Your task to perform on an android device: Go to Wikipedia Image 0: 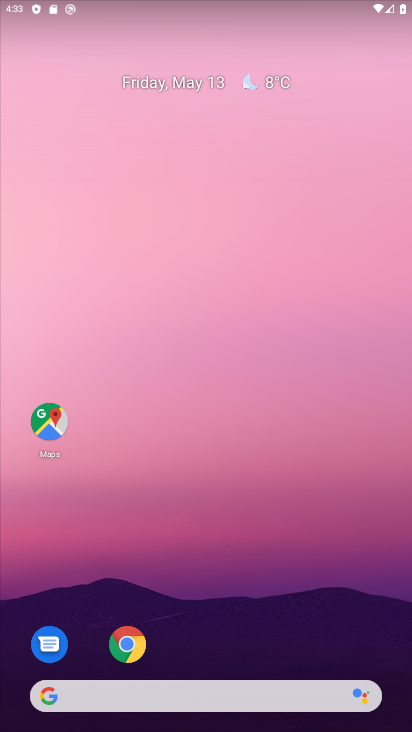
Step 0: click (123, 646)
Your task to perform on an android device: Go to Wikipedia Image 1: 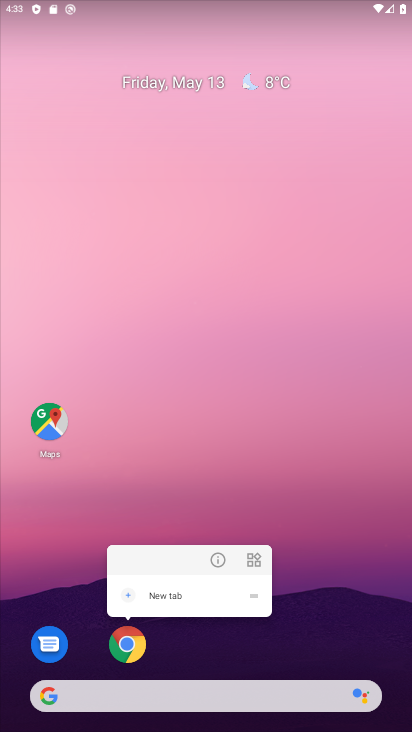
Step 1: click (122, 650)
Your task to perform on an android device: Go to Wikipedia Image 2: 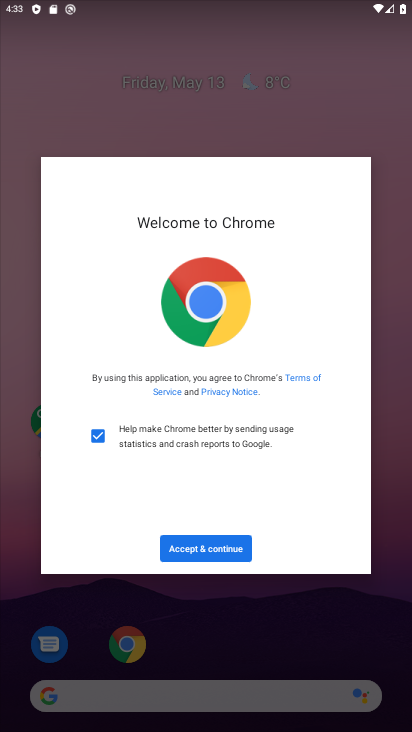
Step 2: click (210, 550)
Your task to perform on an android device: Go to Wikipedia Image 3: 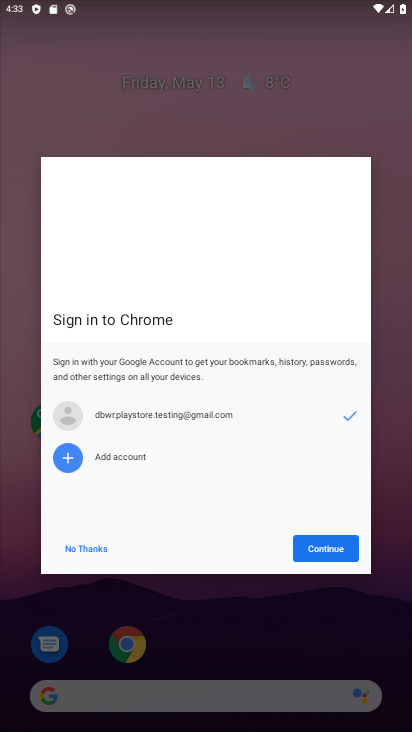
Step 3: click (337, 534)
Your task to perform on an android device: Go to Wikipedia Image 4: 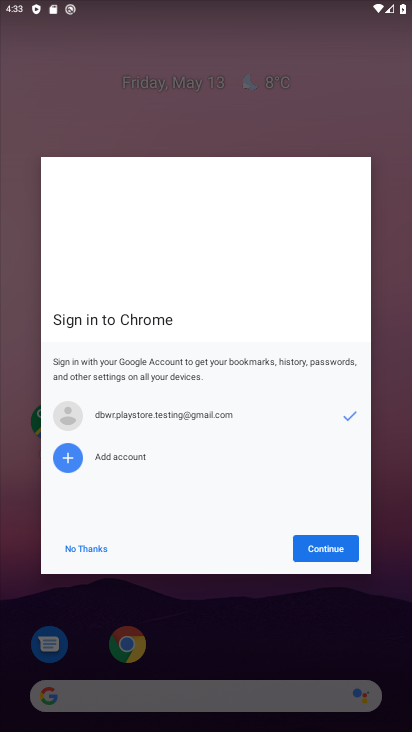
Step 4: click (341, 558)
Your task to perform on an android device: Go to Wikipedia Image 5: 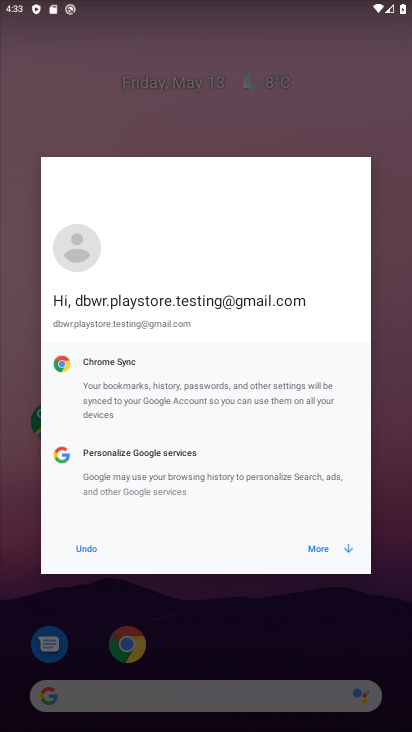
Step 5: click (339, 557)
Your task to perform on an android device: Go to Wikipedia Image 6: 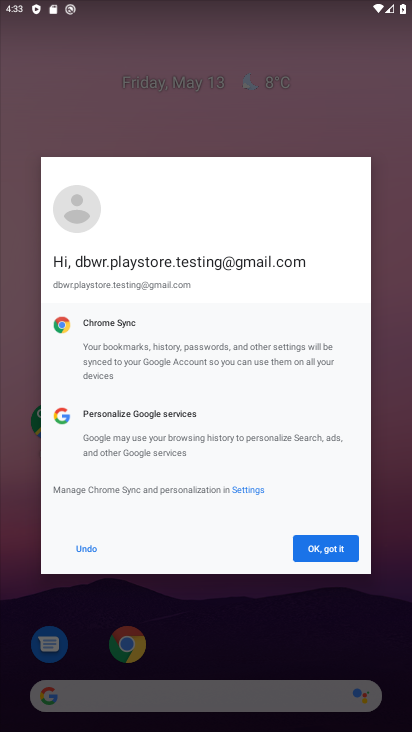
Step 6: click (339, 557)
Your task to perform on an android device: Go to Wikipedia Image 7: 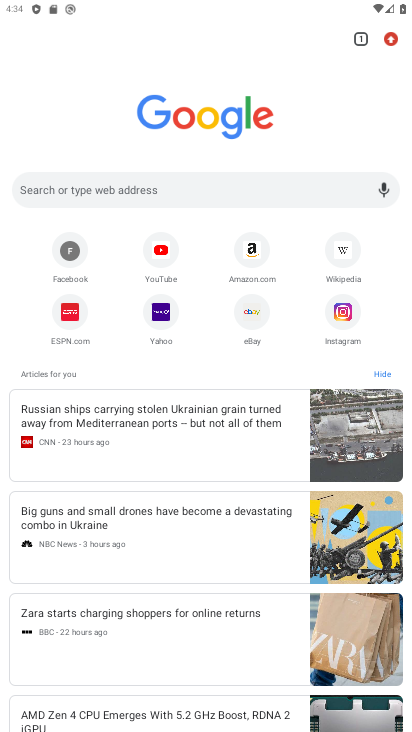
Step 7: click (340, 256)
Your task to perform on an android device: Go to Wikipedia Image 8: 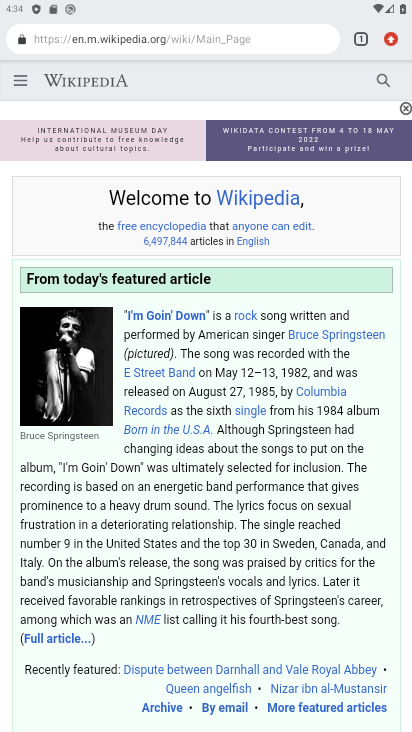
Step 8: task complete